Your task to perform on an android device: Open Youtube and go to "Your channel" Image 0: 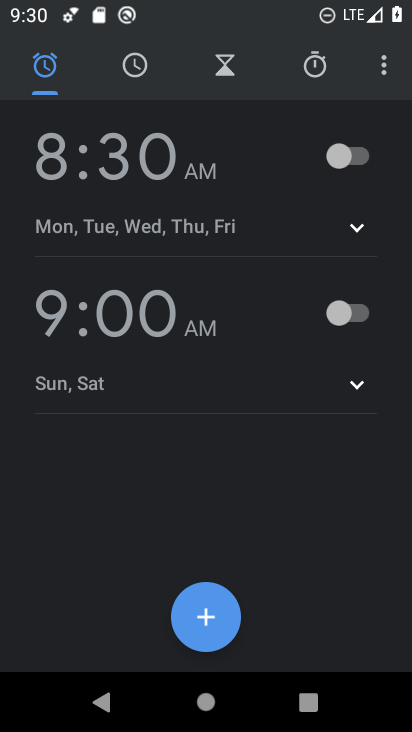
Step 0: press back button
Your task to perform on an android device: Open Youtube and go to "Your channel" Image 1: 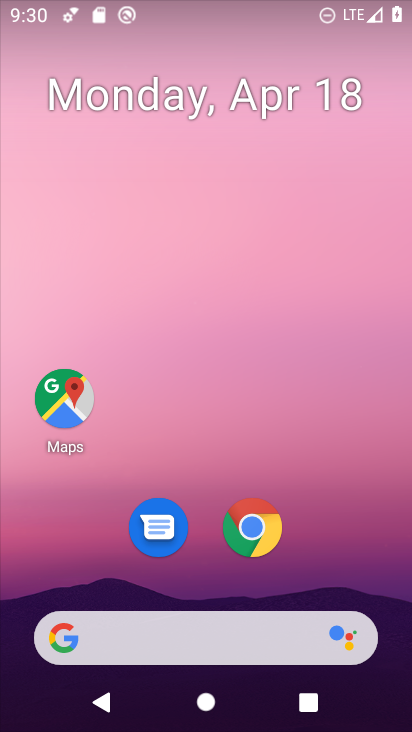
Step 1: drag from (377, 567) to (322, 51)
Your task to perform on an android device: Open Youtube and go to "Your channel" Image 2: 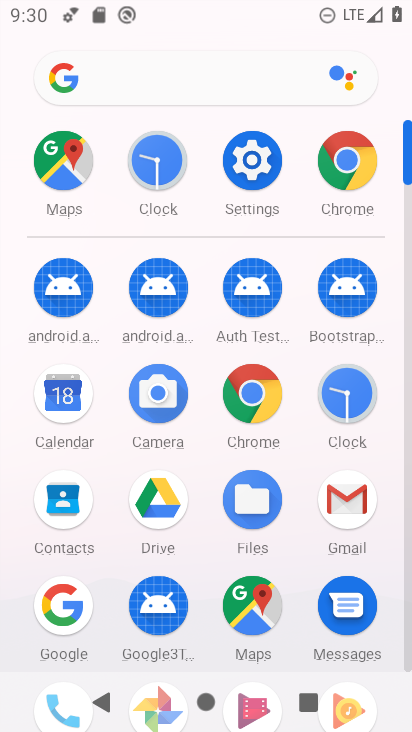
Step 2: drag from (5, 574) to (9, 279)
Your task to perform on an android device: Open Youtube and go to "Your channel" Image 3: 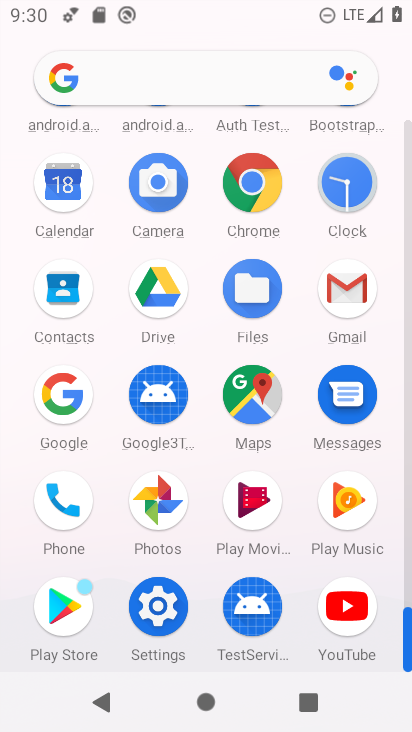
Step 3: click (344, 605)
Your task to perform on an android device: Open Youtube and go to "Your channel" Image 4: 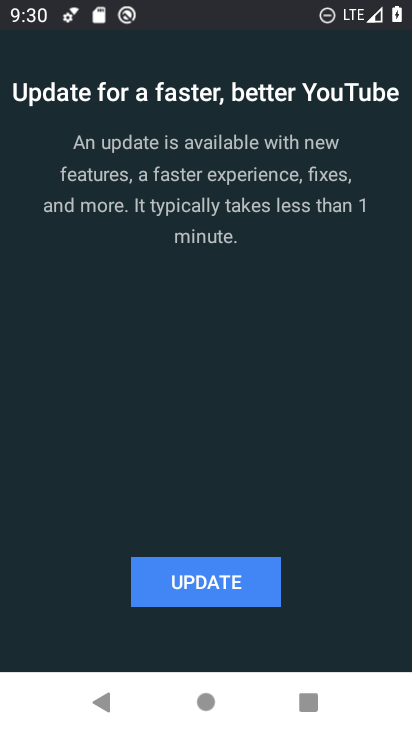
Step 4: click (231, 571)
Your task to perform on an android device: Open Youtube and go to "Your channel" Image 5: 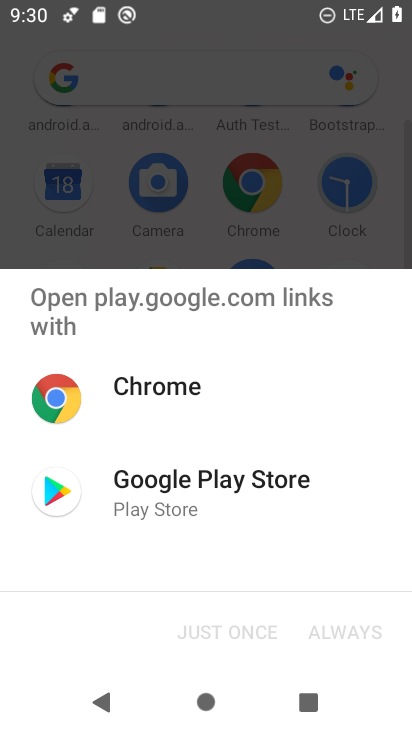
Step 5: click (249, 458)
Your task to perform on an android device: Open Youtube and go to "Your channel" Image 6: 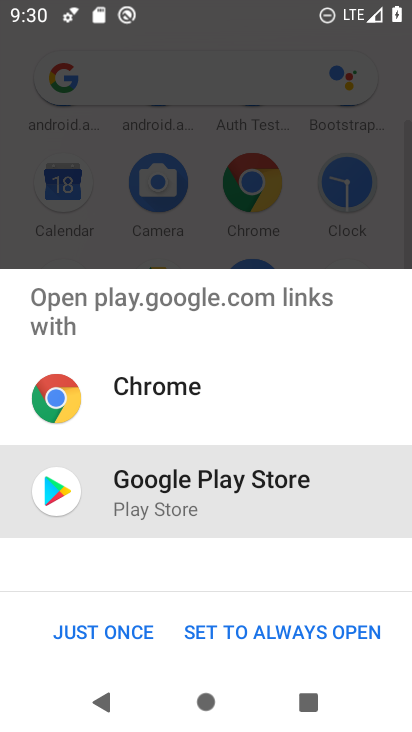
Step 6: click (255, 635)
Your task to perform on an android device: Open Youtube and go to "Your channel" Image 7: 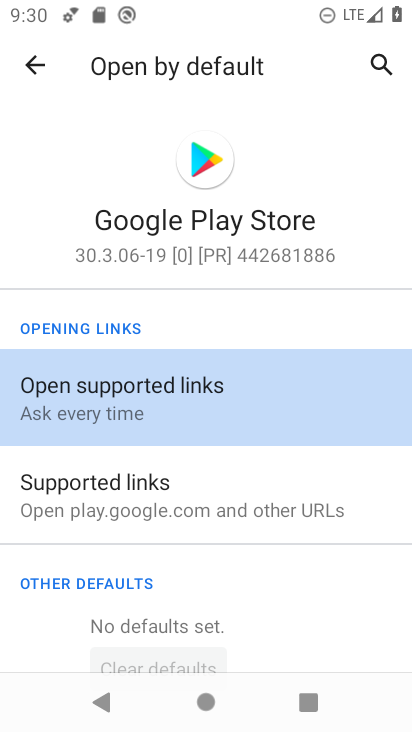
Step 7: press back button
Your task to perform on an android device: Open Youtube and go to "Your channel" Image 8: 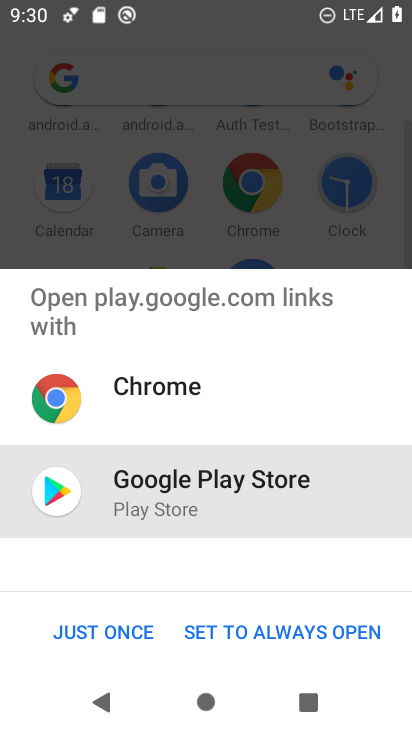
Step 8: click (238, 461)
Your task to perform on an android device: Open Youtube and go to "Your channel" Image 9: 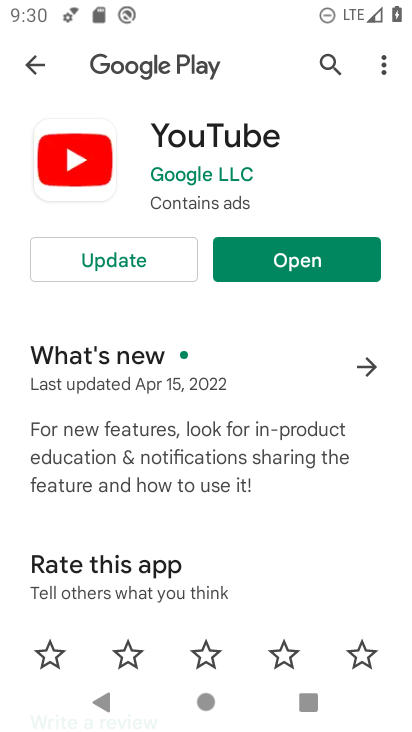
Step 9: click (136, 244)
Your task to perform on an android device: Open Youtube and go to "Your channel" Image 10: 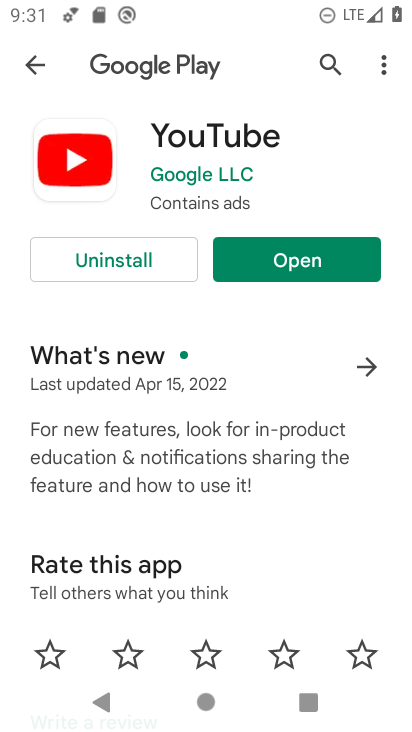
Step 10: click (267, 256)
Your task to perform on an android device: Open Youtube and go to "Your channel" Image 11: 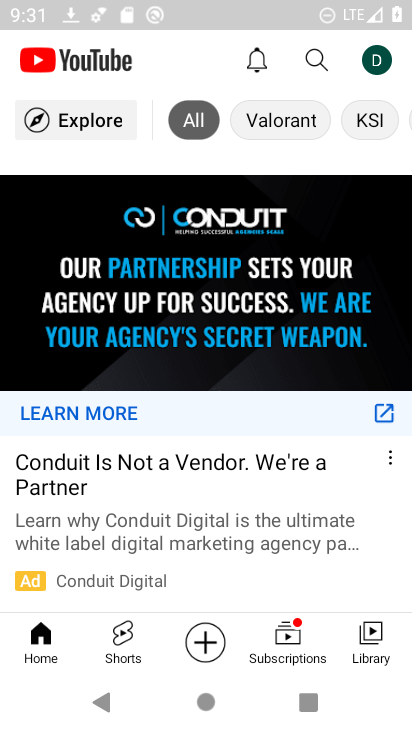
Step 11: click (41, 51)
Your task to perform on an android device: Open Youtube and go to "Your channel" Image 12: 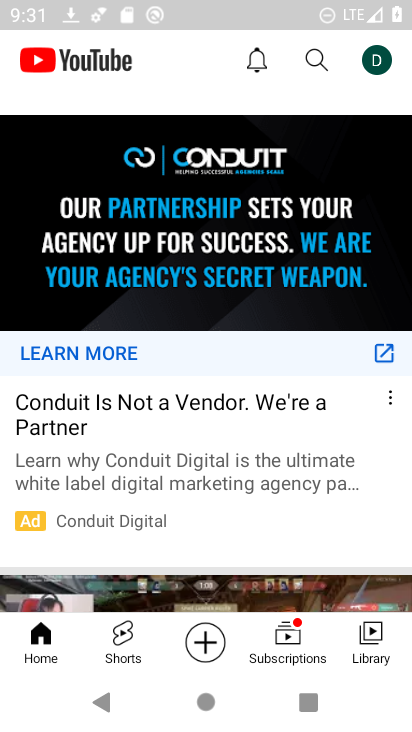
Step 12: click (41, 62)
Your task to perform on an android device: Open Youtube and go to "Your channel" Image 13: 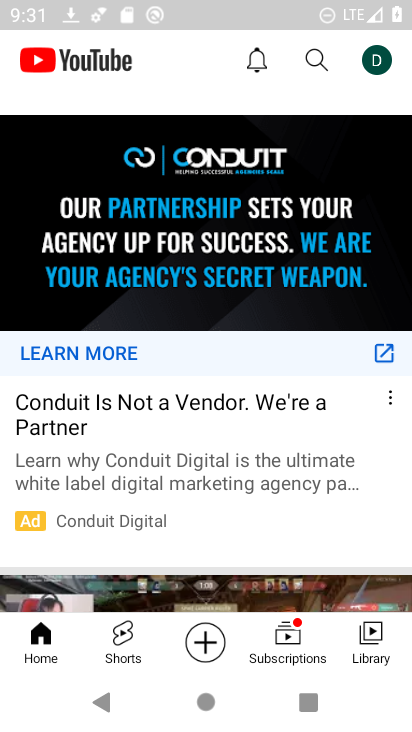
Step 13: click (78, 66)
Your task to perform on an android device: Open Youtube and go to "Your channel" Image 14: 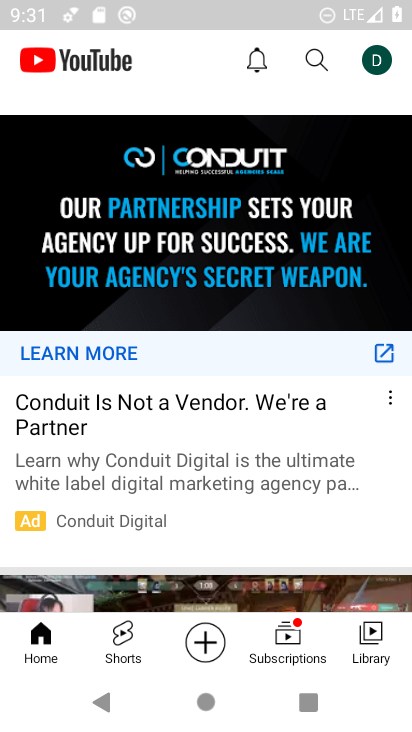
Step 14: click (366, 635)
Your task to perform on an android device: Open Youtube and go to "Your channel" Image 15: 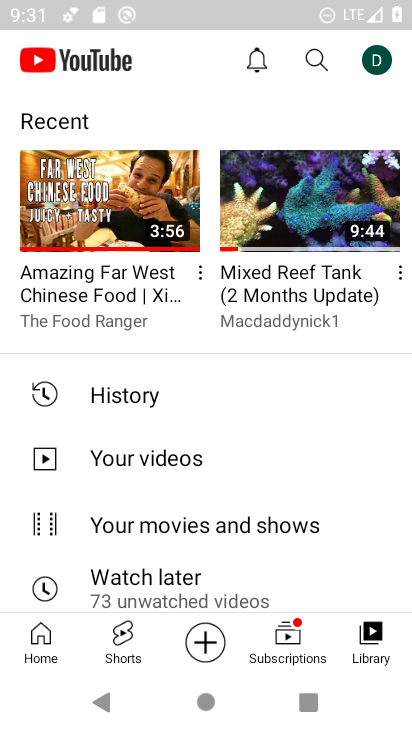
Step 15: drag from (288, 556) to (294, 263)
Your task to perform on an android device: Open Youtube and go to "Your channel" Image 16: 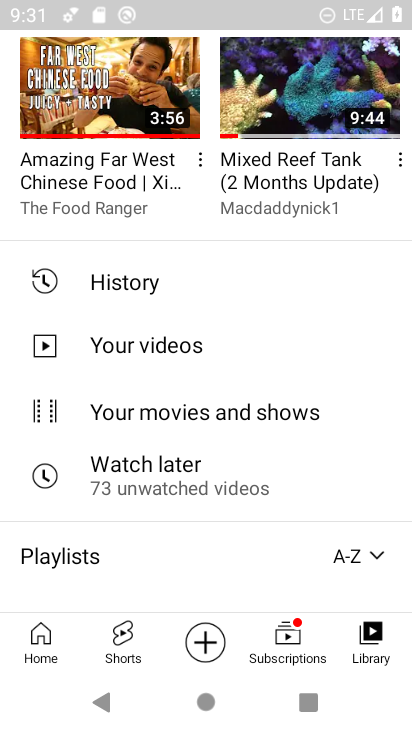
Step 16: drag from (232, 519) to (287, 227)
Your task to perform on an android device: Open Youtube and go to "Your channel" Image 17: 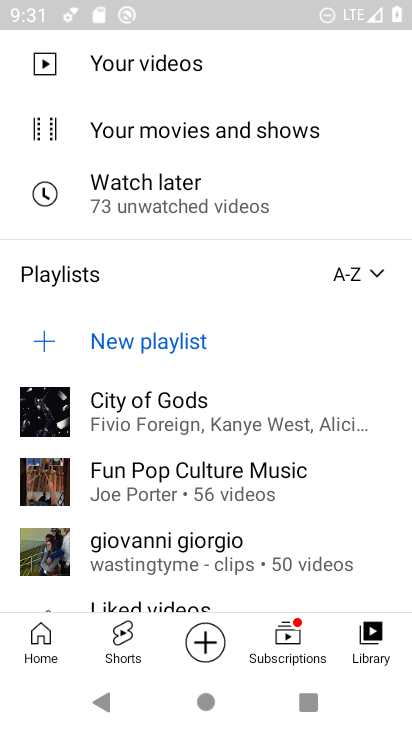
Step 17: click (190, 58)
Your task to perform on an android device: Open Youtube and go to "Your channel" Image 18: 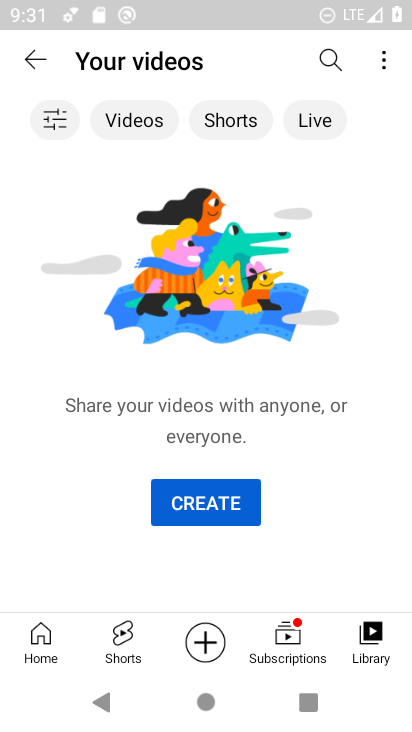
Step 18: click (27, 70)
Your task to perform on an android device: Open Youtube and go to "Your channel" Image 19: 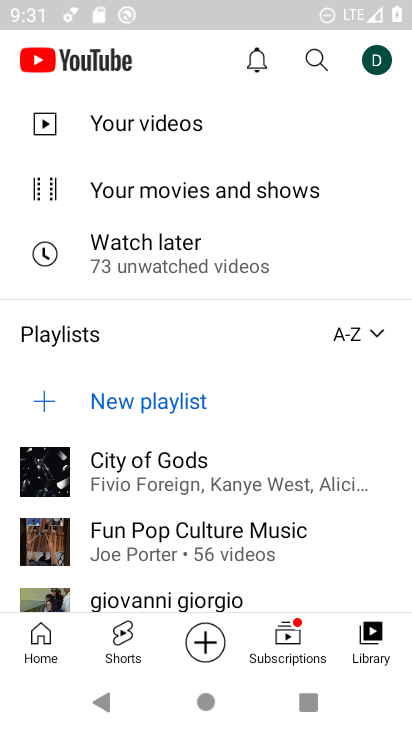
Step 19: task complete